Your task to perform on an android device: Go to notification settings Image 0: 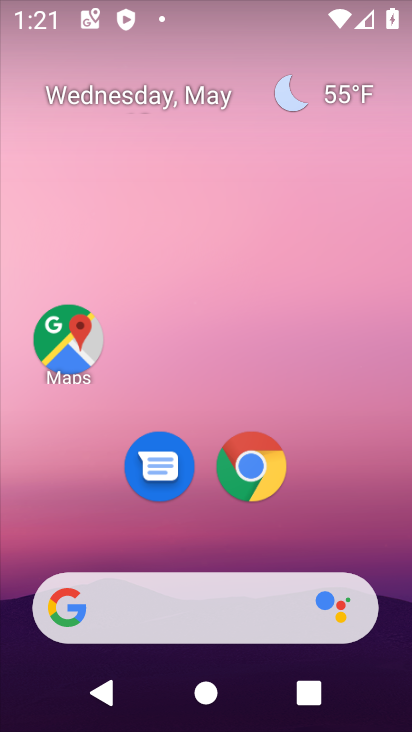
Step 0: drag from (216, 562) to (168, 34)
Your task to perform on an android device: Go to notification settings Image 1: 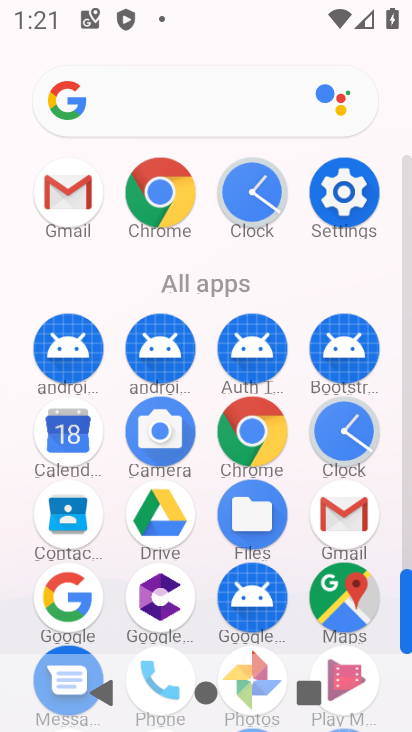
Step 1: click (335, 206)
Your task to perform on an android device: Go to notification settings Image 2: 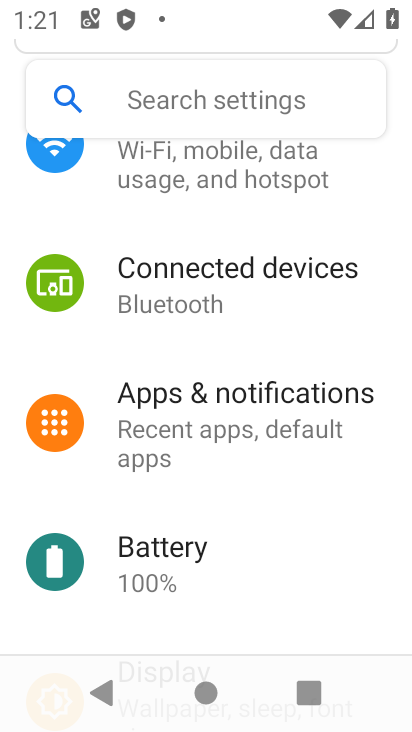
Step 2: click (224, 431)
Your task to perform on an android device: Go to notification settings Image 3: 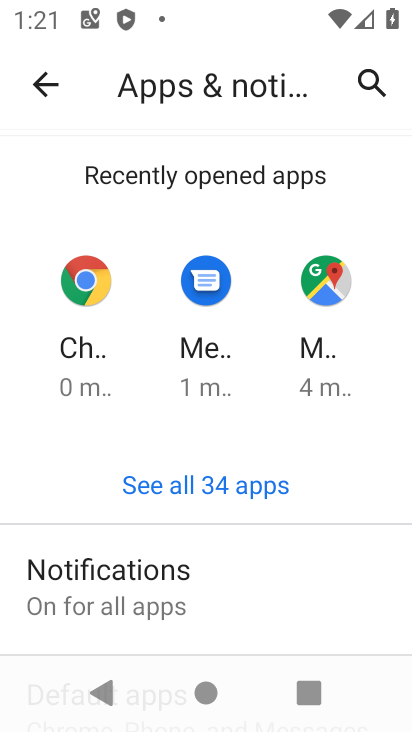
Step 3: click (211, 586)
Your task to perform on an android device: Go to notification settings Image 4: 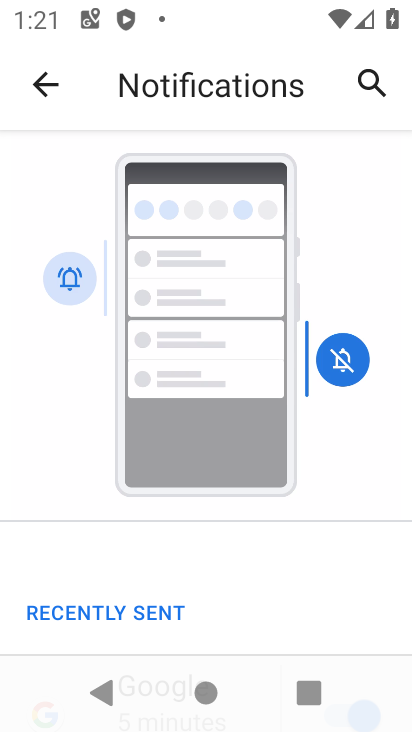
Step 4: task complete